Your task to perform on an android device: Open display settings Image 0: 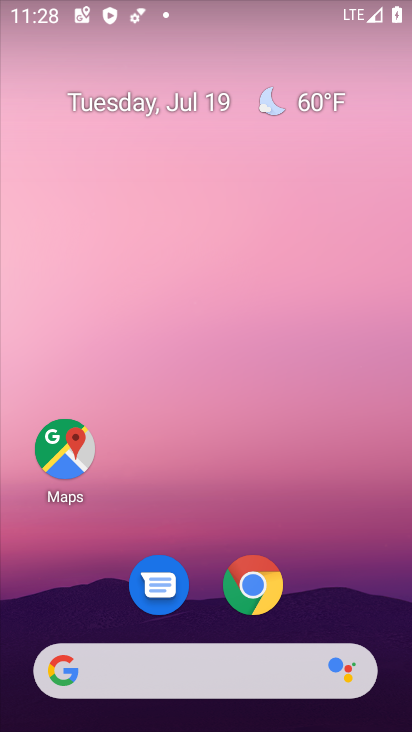
Step 0: drag from (232, 519) to (236, 38)
Your task to perform on an android device: Open display settings Image 1: 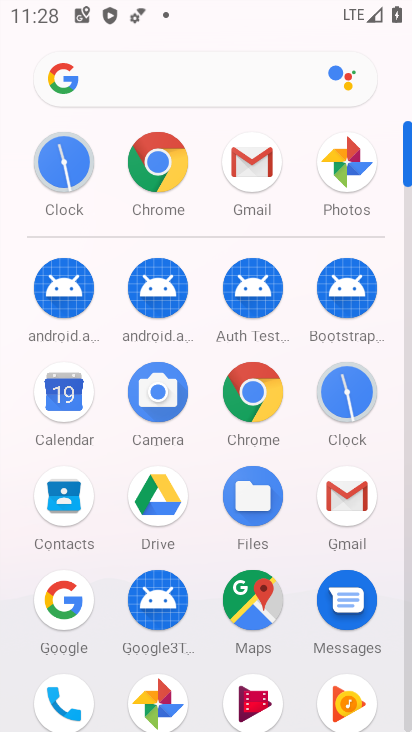
Step 1: drag from (301, 558) to (259, 185)
Your task to perform on an android device: Open display settings Image 2: 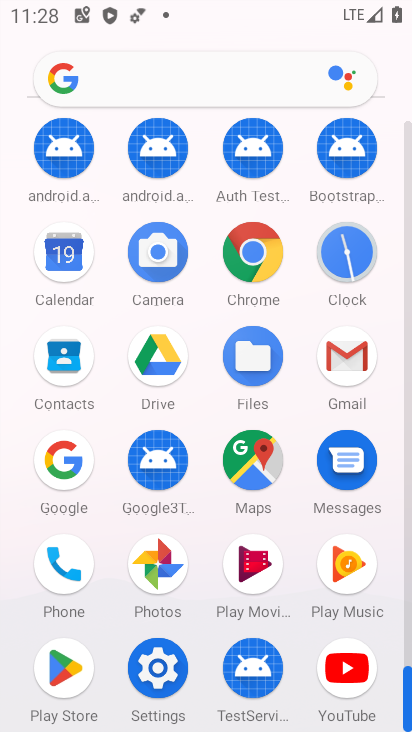
Step 2: click (162, 656)
Your task to perform on an android device: Open display settings Image 3: 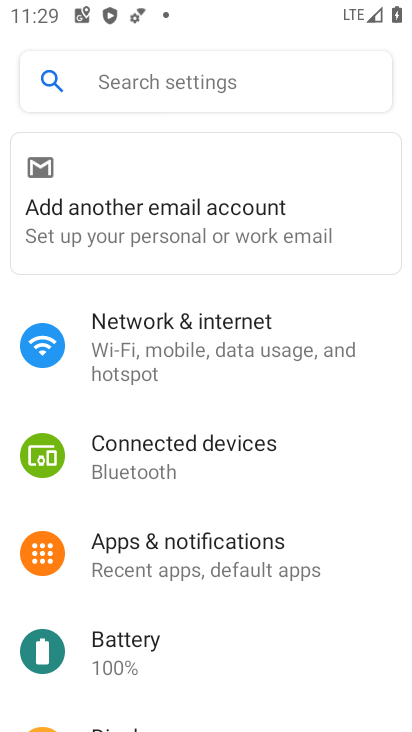
Step 3: drag from (195, 614) to (200, 284)
Your task to perform on an android device: Open display settings Image 4: 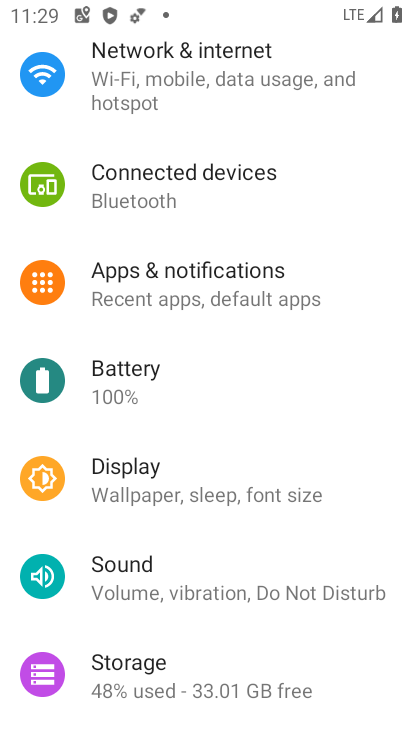
Step 4: click (168, 488)
Your task to perform on an android device: Open display settings Image 5: 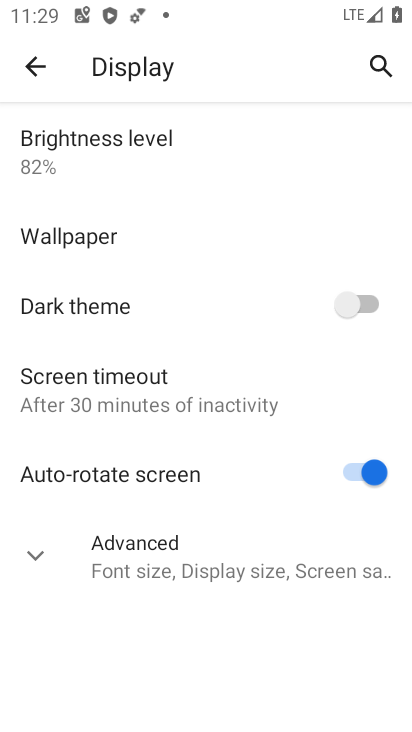
Step 5: click (33, 552)
Your task to perform on an android device: Open display settings Image 6: 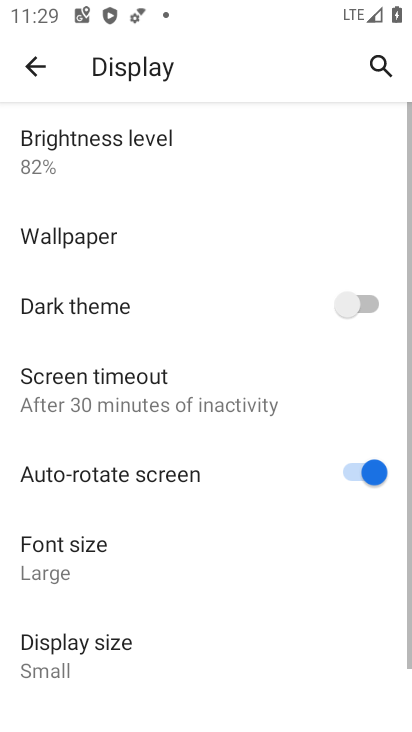
Step 6: task complete